Your task to perform on an android device: Go to Reddit.com Image 0: 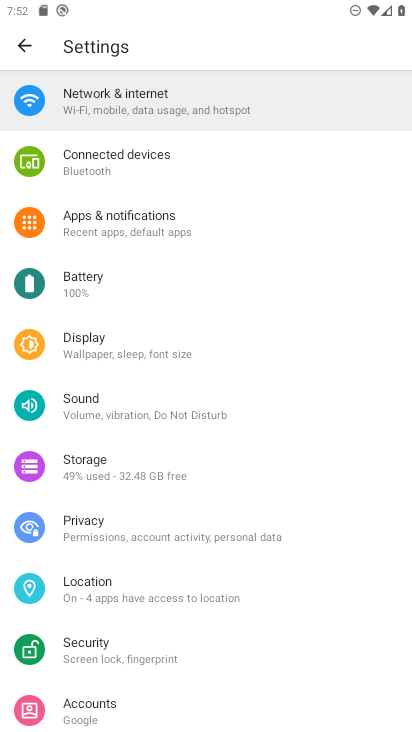
Step 0: press home button
Your task to perform on an android device: Go to Reddit.com Image 1: 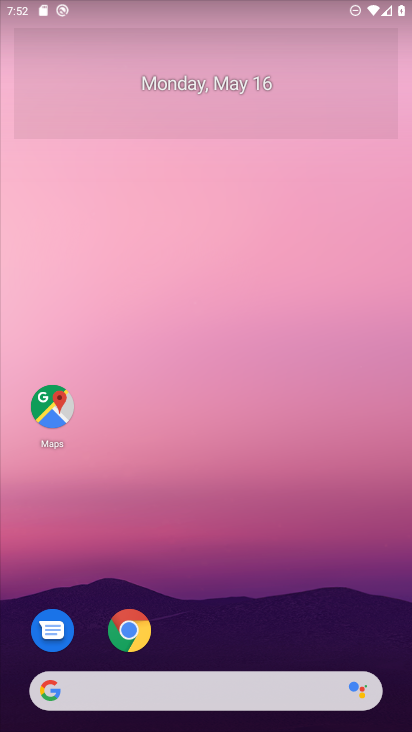
Step 1: click (145, 682)
Your task to perform on an android device: Go to Reddit.com Image 2: 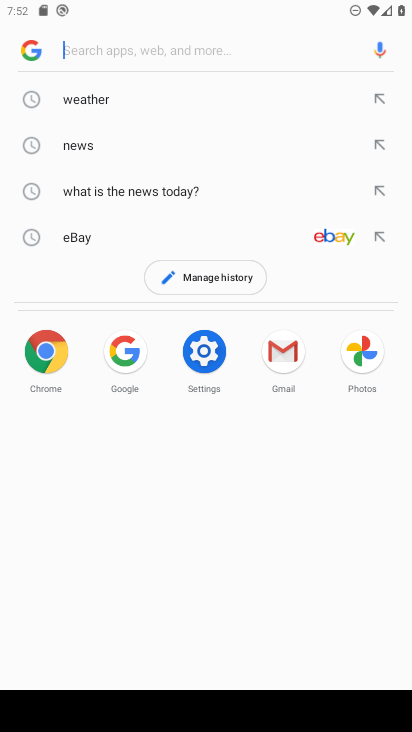
Step 2: type "Reddit.com"
Your task to perform on an android device: Go to Reddit.com Image 3: 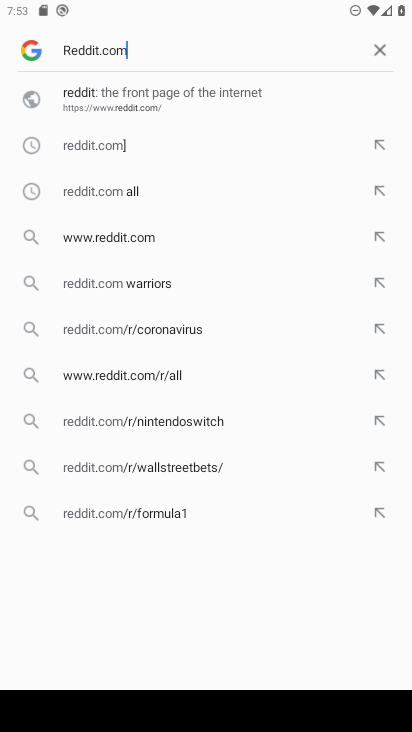
Step 3: click (128, 153)
Your task to perform on an android device: Go to Reddit.com Image 4: 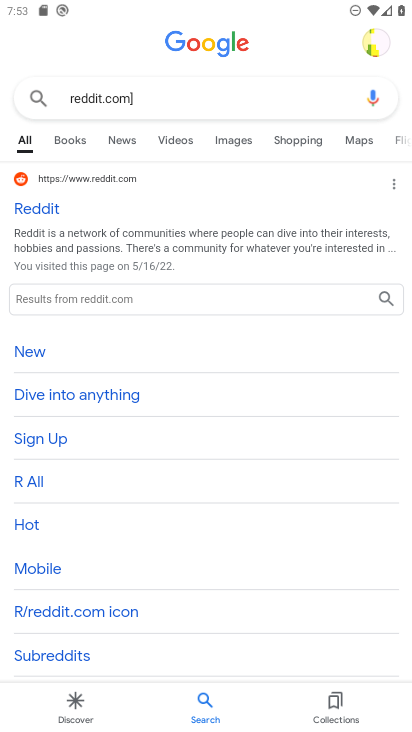
Step 4: click (119, 211)
Your task to perform on an android device: Go to Reddit.com Image 5: 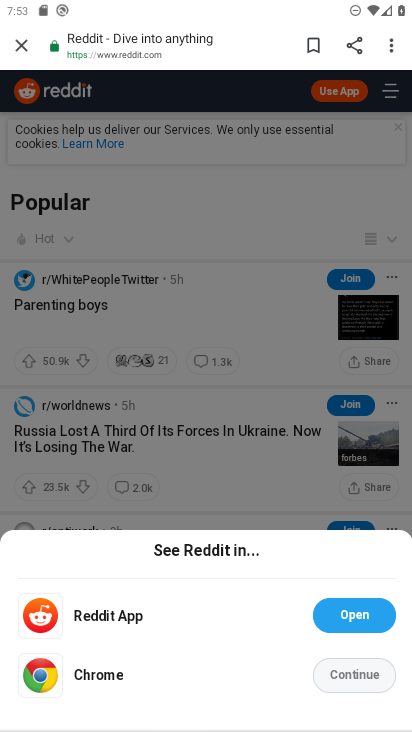
Step 5: drag from (146, 376) to (134, 112)
Your task to perform on an android device: Go to Reddit.com Image 6: 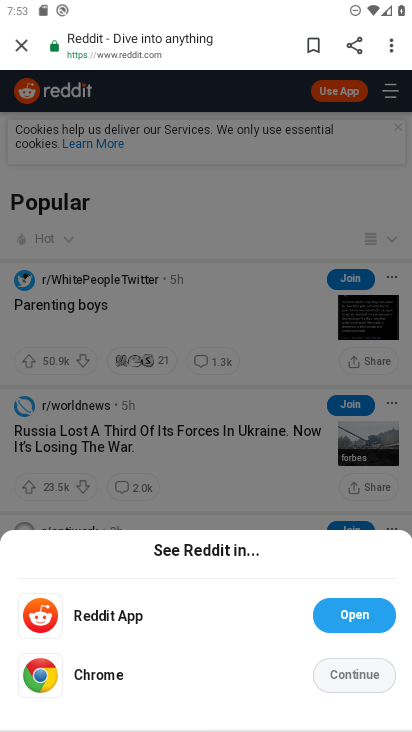
Step 6: click (362, 611)
Your task to perform on an android device: Go to Reddit.com Image 7: 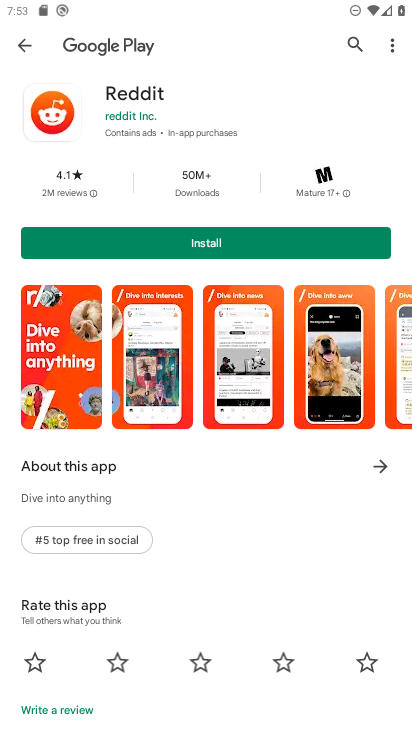
Step 7: press back button
Your task to perform on an android device: Go to Reddit.com Image 8: 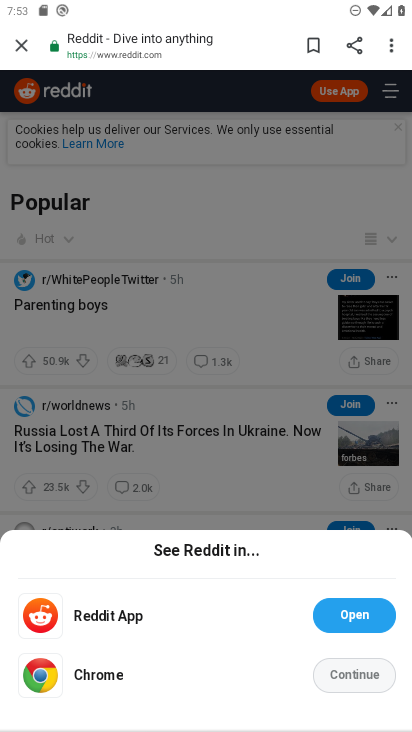
Step 8: drag from (180, 420) to (198, 140)
Your task to perform on an android device: Go to Reddit.com Image 9: 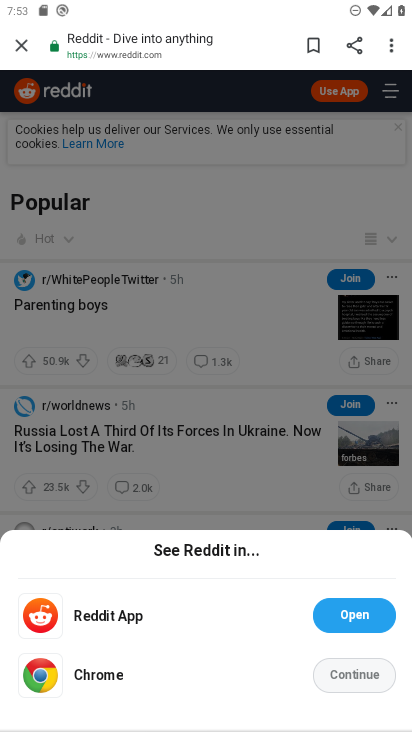
Step 9: drag from (193, 522) to (219, 722)
Your task to perform on an android device: Go to Reddit.com Image 10: 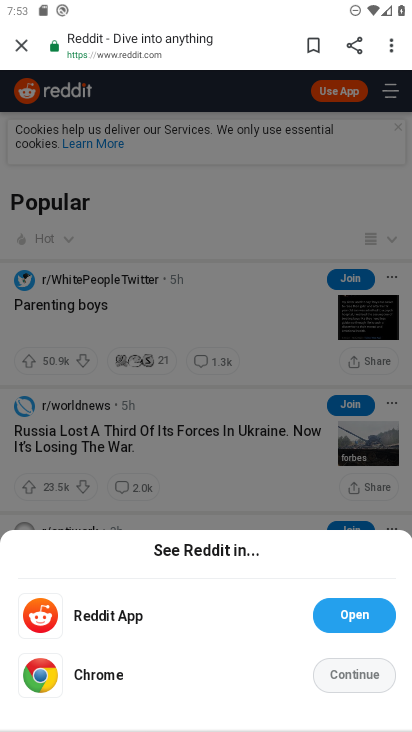
Step 10: drag from (221, 478) to (243, 215)
Your task to perform on an android device: Go to Reddit.com Image 11: 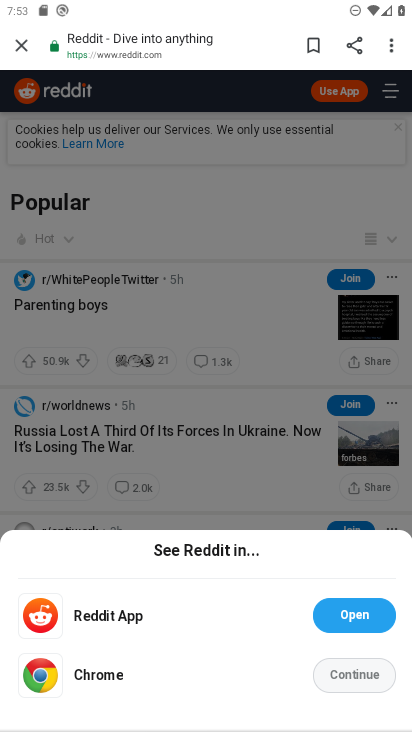
Step 11: click (366, 674)
Your task to perform on an android device: Go to Reddit.com Image 12: 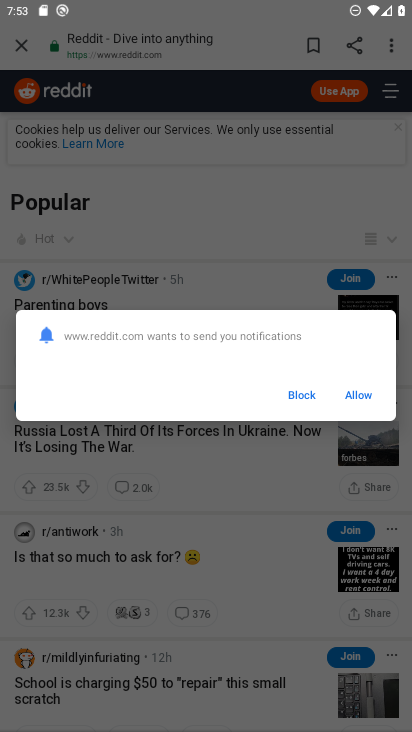
Step 12: click (358, 390)
Your task to perform on an android device: Go to Reddit.com Image 13: 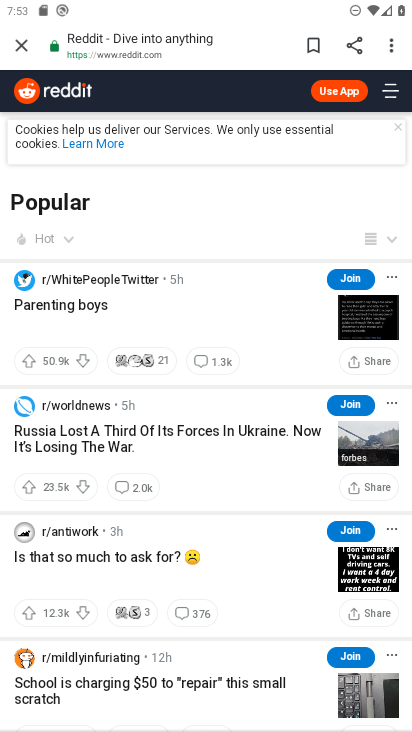
Step 13: task complete